Your task to perform on an android device: choose inbox layout in the gmail app Image 0: 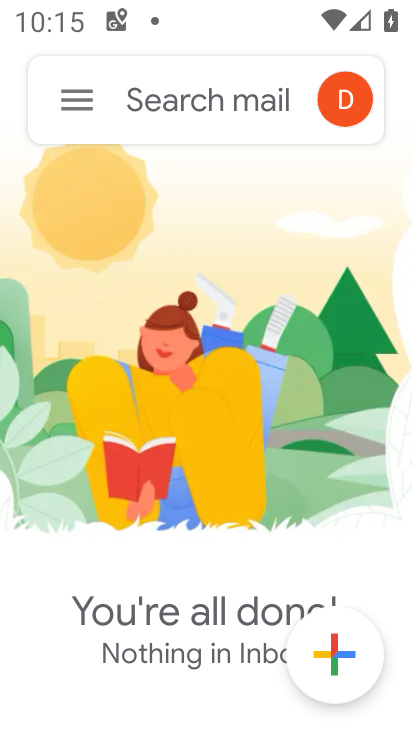
Step 0: click (75, 91)
Your task to perform on an android device: choose inbox layout in the gmail app Image 1: 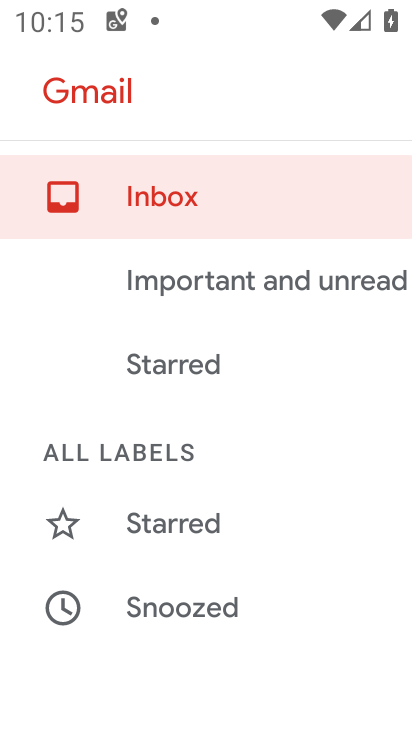
Step 1: drag from (205, 629) to (235, 137)
Your task to perform on an android device: choose inbox layout in the gmail app Image 2: 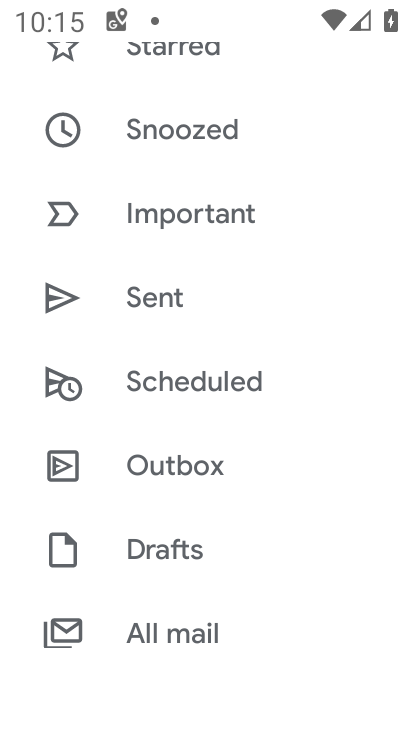
Step 2: drag from (192, 656) to (192, 270)
Your task to perform on an android device: choose inbox layout in the gmail app Image 3: 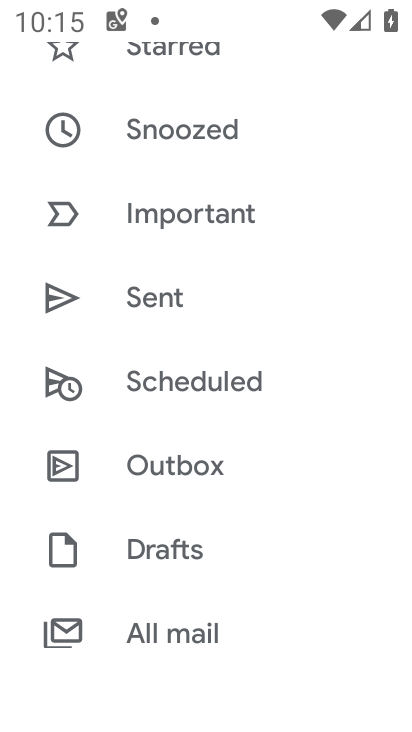
Step 3: drag from (161, 655) to (187, 306)
Your task to perform on an android device: choose inbox layout in the gmail app Image 4: 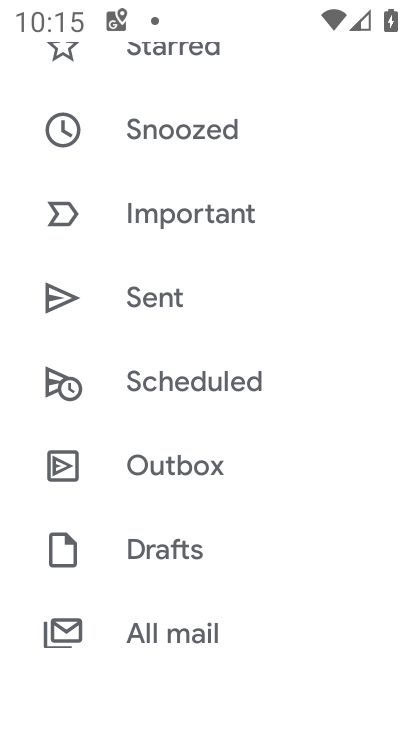
Step 4: drag from (177, 578) to (177, 214)
Your task to perform on an android device: choose inbox layout in the gmail app Image 5: 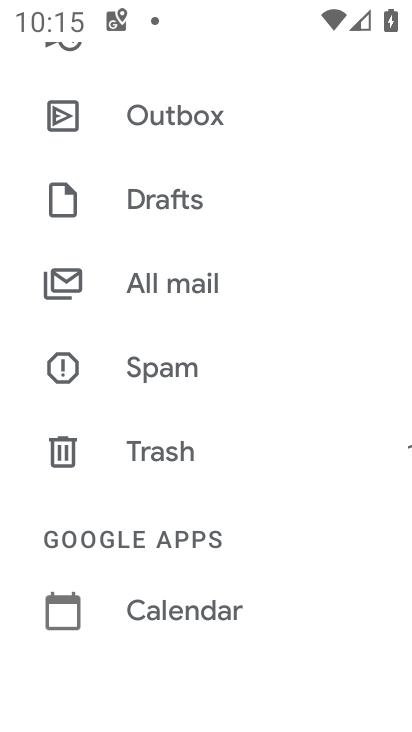
Step 5: drag from (176, 642) to (179, 280)
Your task to perform on an android device: choose inbox layout in the gmail app Image 6: 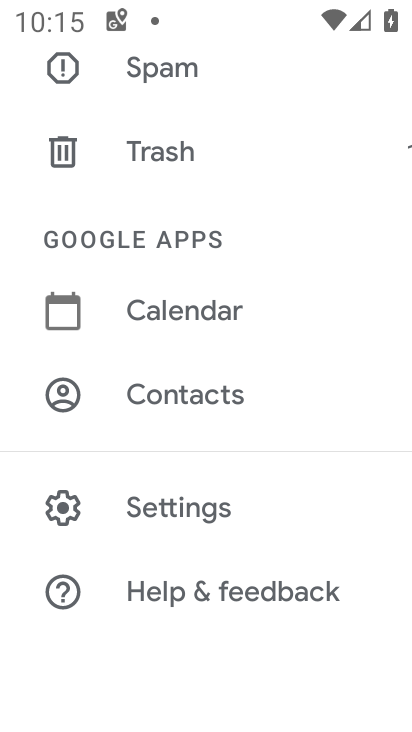
Step 6: click (179, 513)
Your task to perform on an android device: choose inbox layout in the gmail app Image 7: 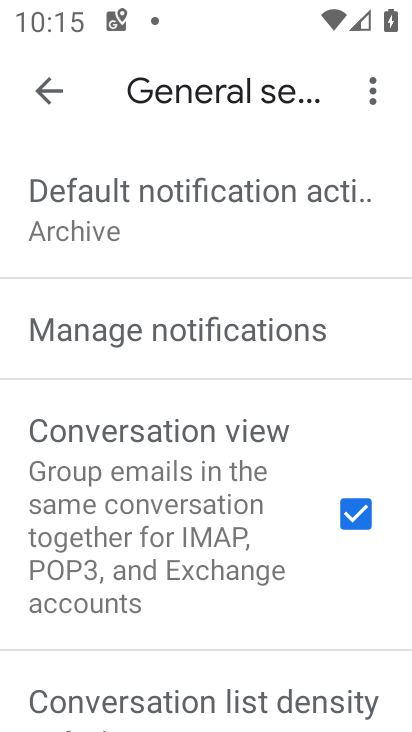
Step 7: click (52, 87)
Your task to perform on an android device: choose inbox layout in the gmail app Image 8: 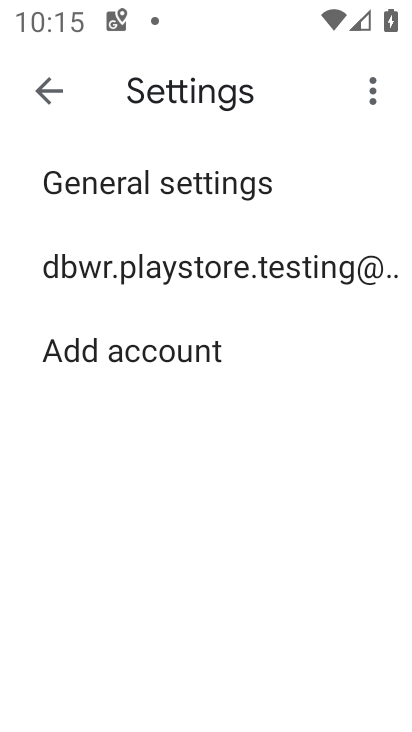
Step 8: click (111, 261)
Your task to perform on an android device: choose inbox layout in the gmail app Image 9: 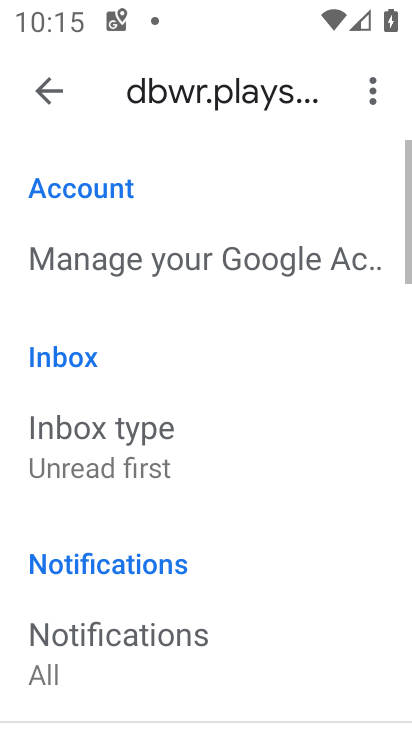
Step 9: click (130, 448)
Your task to perform on an android device: choose inbox layout in the gmail app Image 10: 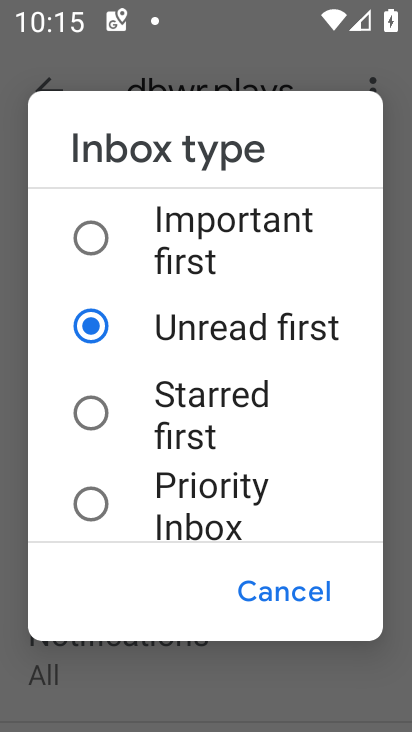
Step 10: click (104, 226)
Your task to perform on an android device: choose inbox layout in the gmail app Image 11: 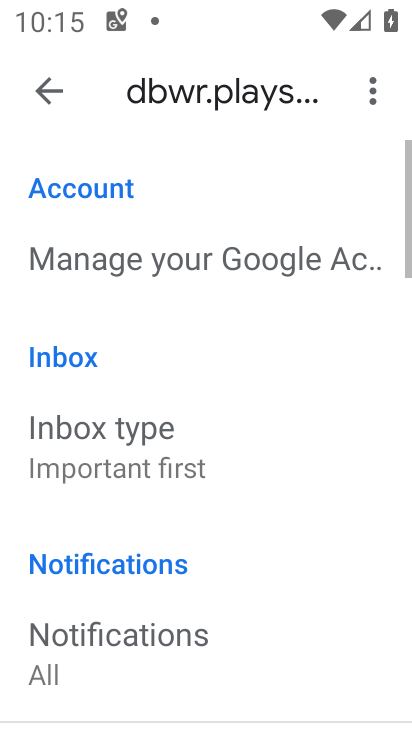
Step 11: task complete